Your task to perform on an android device: Show me productivity apps on the Play Store Image 0: 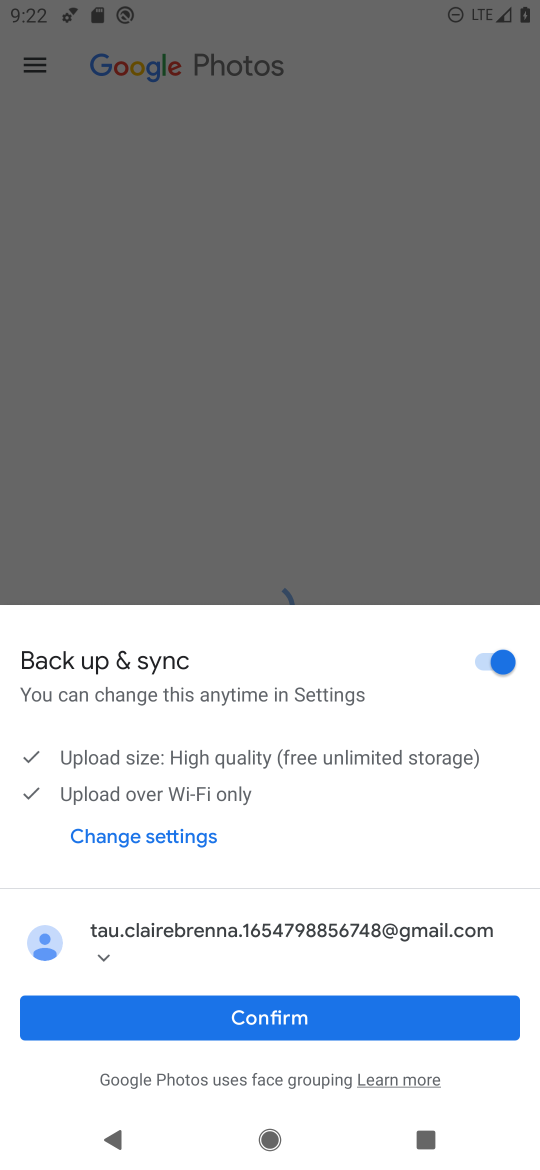
Step 0: press home button
Your task to perform on an android device: Show me productivity apps on the Play Store Image 1: 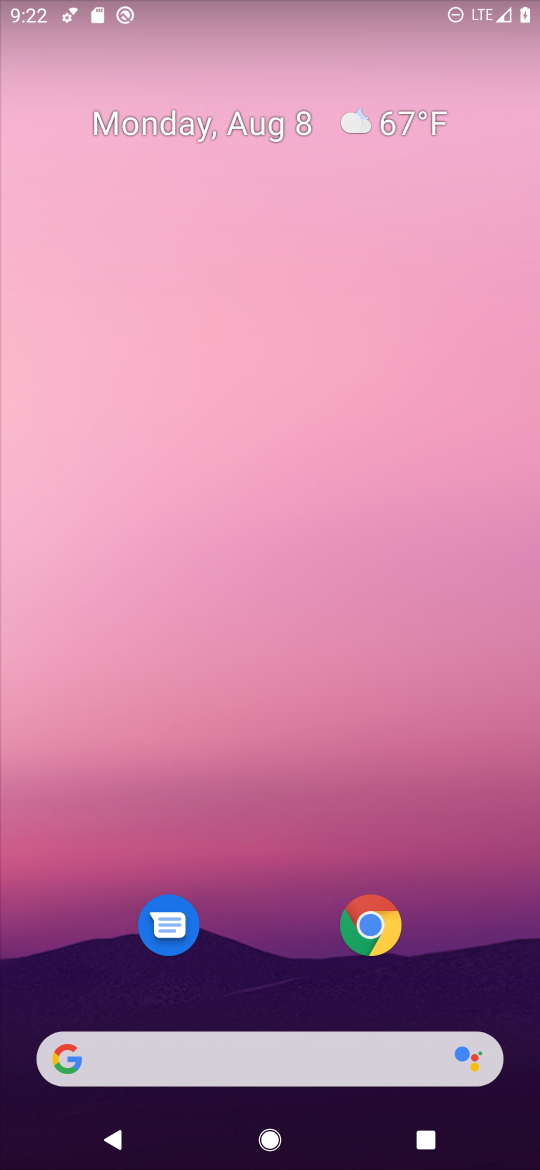
Step 1: drag from (273, 886) to (259, 123)
Your task to perform on an android device: Show me productivity apps on the Play Store Image 2: 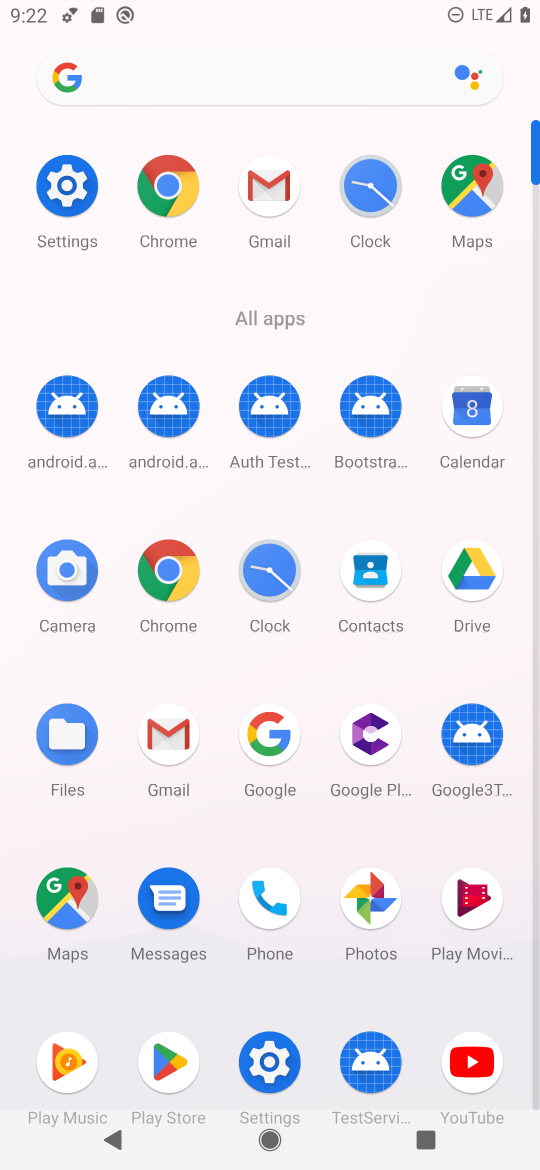
Step 2: click (171, 1067)
Your task to perform on an android device: Show me productivity apps on the Play Store Image 3: 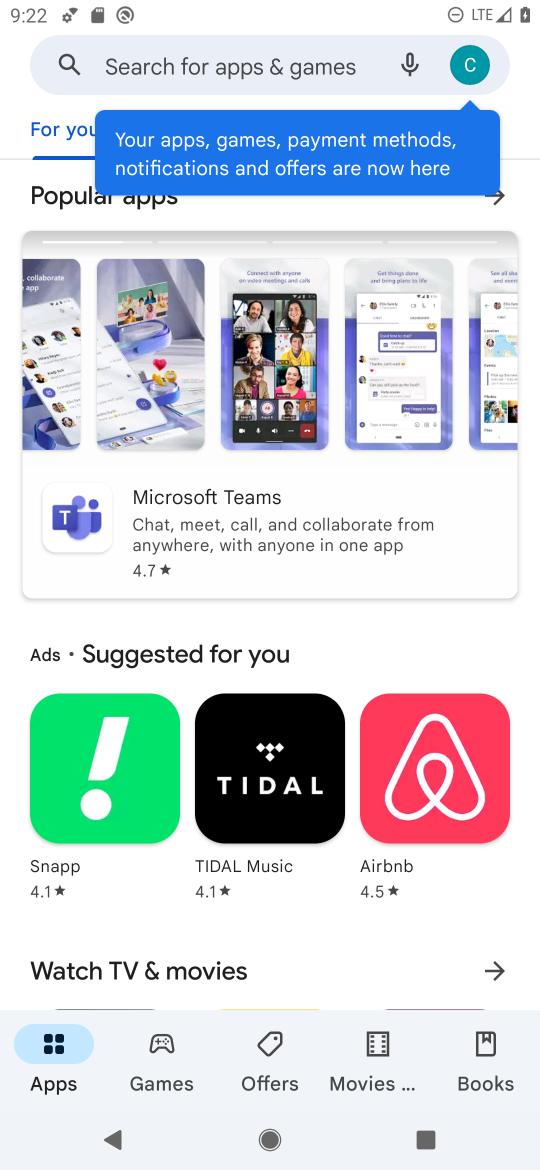
Step 3: task complete